Your task to perform on an android device: turn off improve location accuracy Image 0: 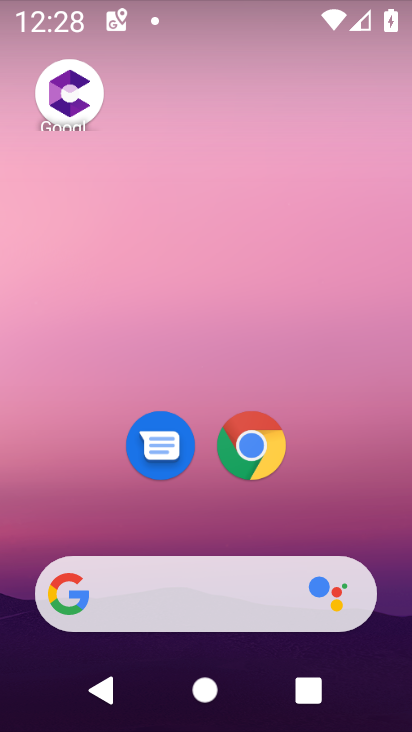
Step 0: drag from (326, 506) to (265, 177)
Your task to perform on an android device: turn off improve location accuracy Image 1: 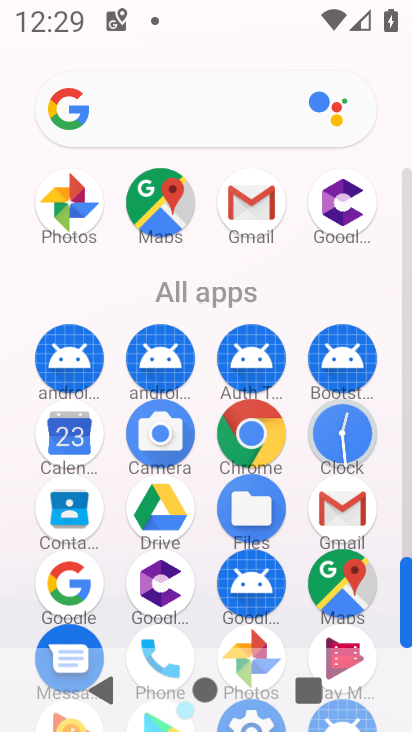
Step 1: drag from (304, 550) to (276, 238)
Your task to perform on an android device: turn off improve location accuracy Image 2: 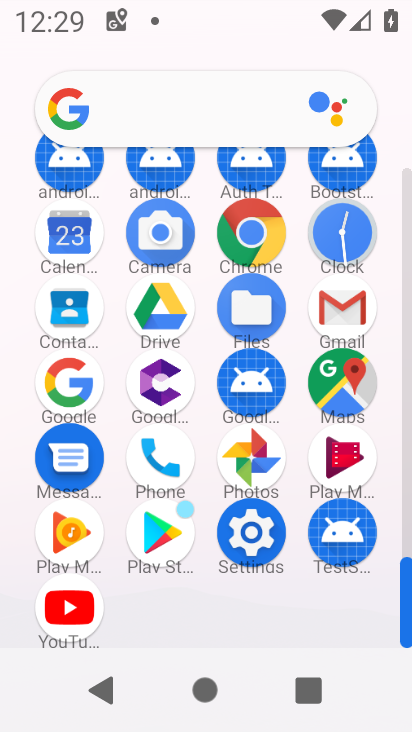
Step 2: click (250, 530)
Your task to perform on an android device: turn off improve location accuracy Image 3: 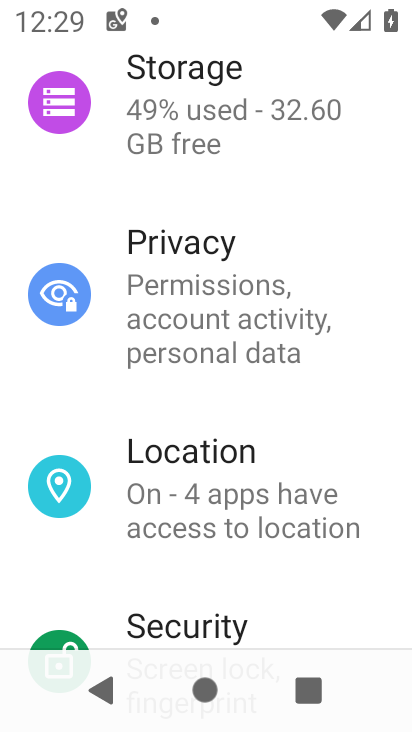
Step 3: click (194, 448)
Your task to perform on an android device: turn off improve location accuracy Image 4: 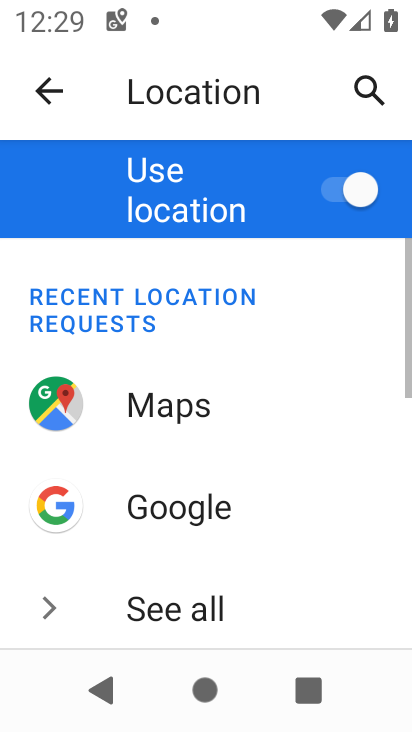
Step 4: drag from (215, 569) to (274, 458)
Your task to perform on an android device: turn off improve location accuracy Image 5: 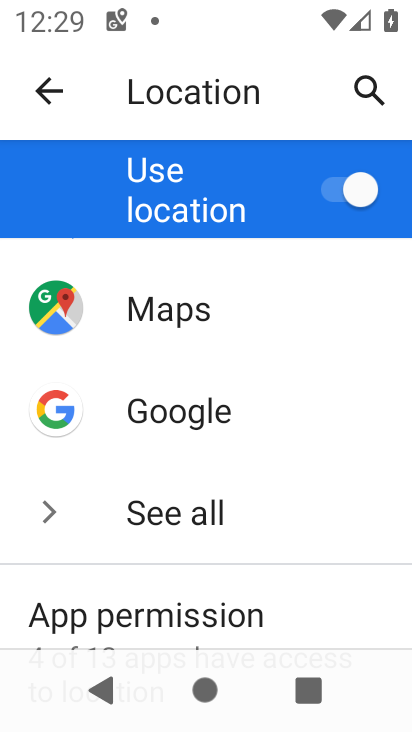
Step 5: drag from (224, 584) to (290, 491)
Your task to perform on an android device: turn off improve location accuracy Image 6: 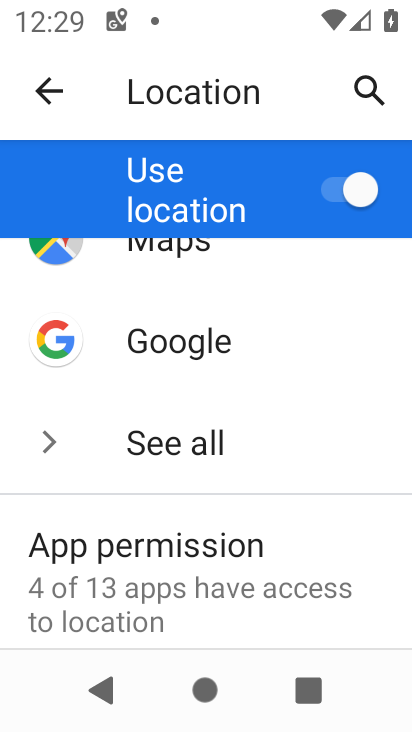
Step 6: drag from (245, 621) to (281, 406)
Your task to perform on an android device: turn off improve location accuracy Image 7: 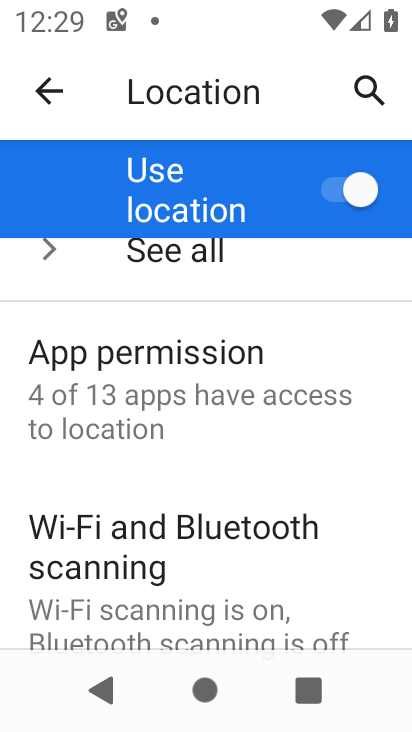
Step 7: drag from (209, 545) to (288, 412)
Your task to perform on an android device: turn off improve location accuracy Image 8: 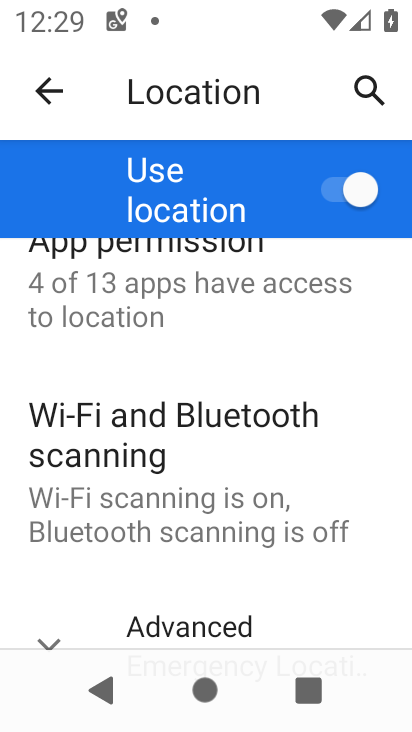
Step 8: drag from (208, 555) to (299, 394)
Your task to perform on an android device: turn off improve location accuracy Image 9: 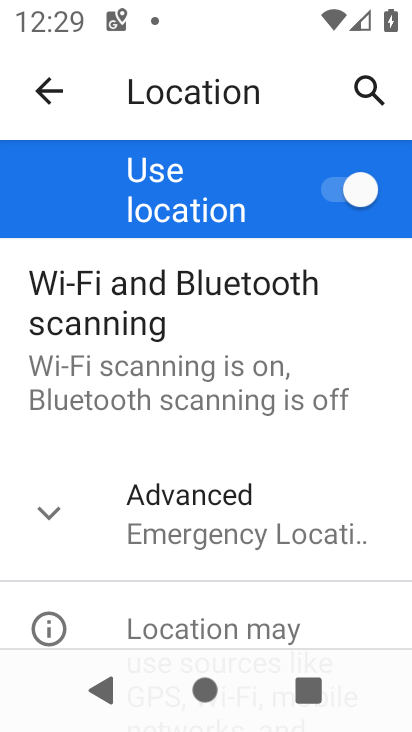
Step 9: click (208, 513)
Your task to perform on an android device: turn off improve location accuracy Image 10: 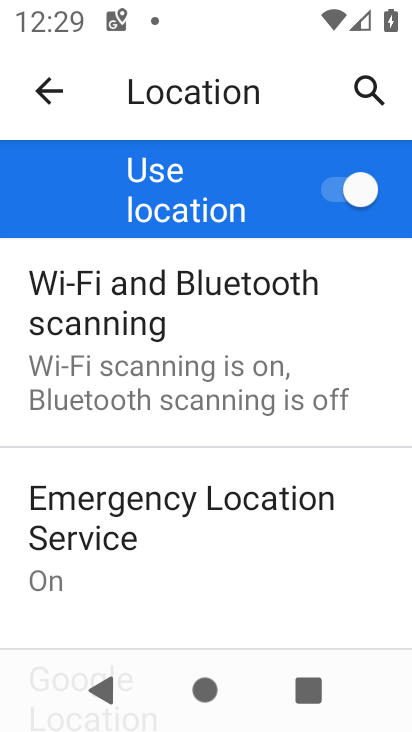
Step 10: drag from (200, 569) to (246, 386)
Your task to perform on an android device: turn off improve location accuracy Image 11: 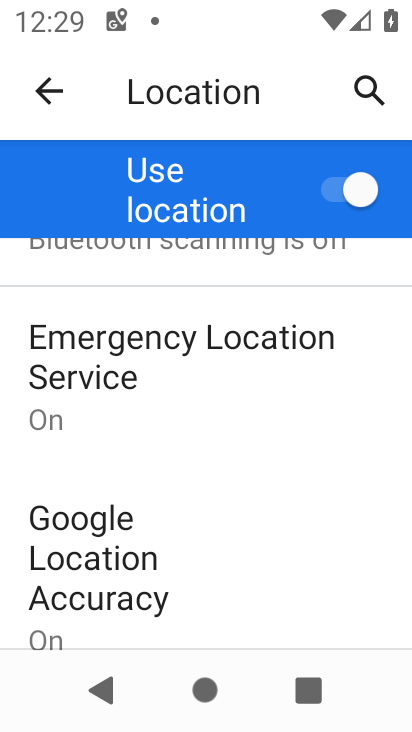
Step 11: drag from (192, 536) to (250, 428)
Your task to perform on an android device: turn off improve location accuracy Image 12: 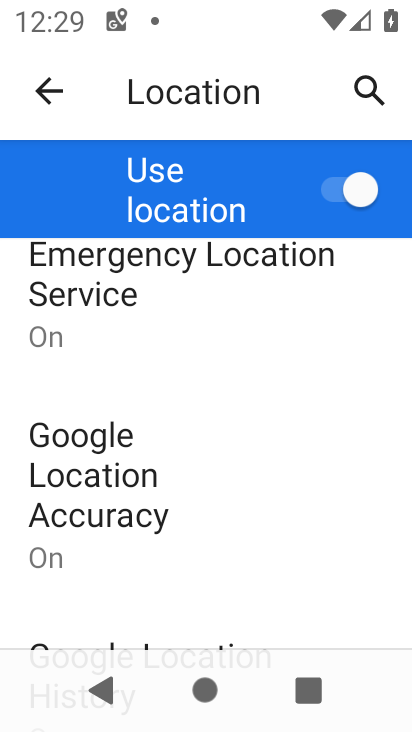
Step 12: click (159, 471)
Your task to perform on an android device: turn off improve location accuracy Image 13: 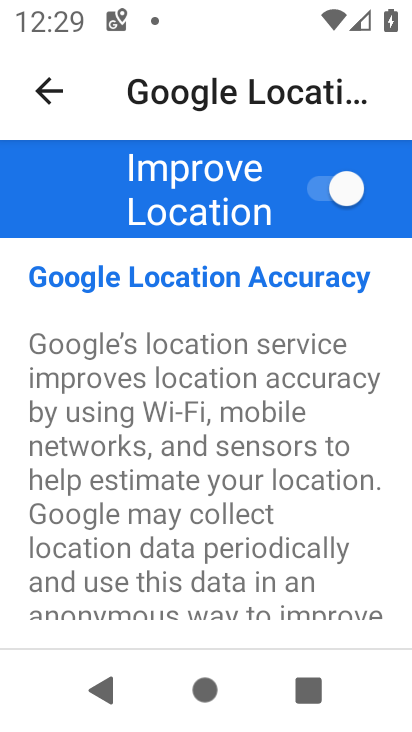
Step 13: click (345, 192)
Your task to perform on an android device: turn off improve location accuracy Image 14: 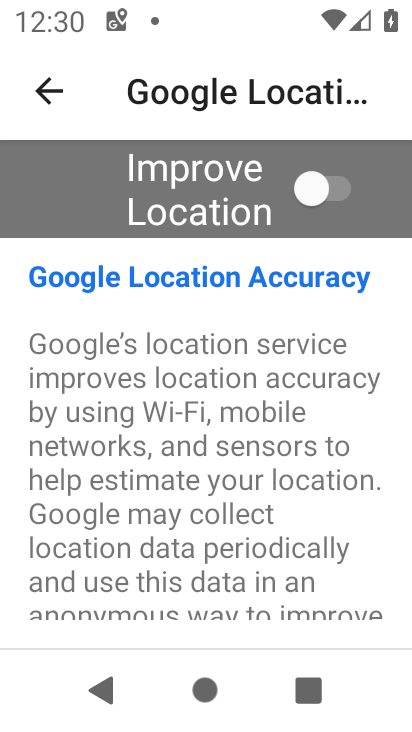
Step 14: task complete